Your task to perform on an android device: Open the calendar app, open the side menu, and click the "Day" option Image 0: 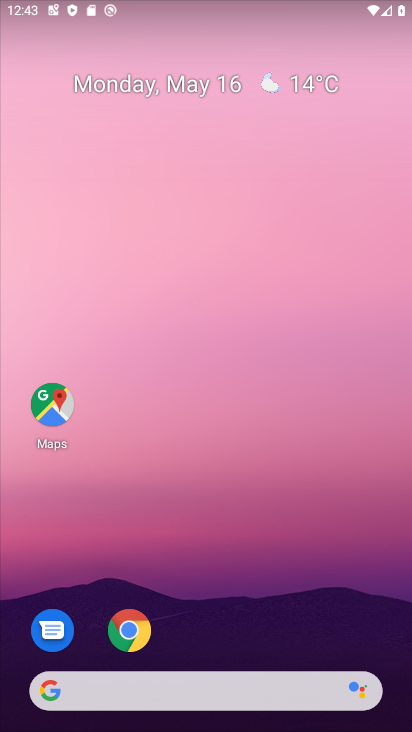
Step 0: drag from (239, 632) to (179, 14)
Your task to perform on an android device: Open the calendar app, open the side menu, and click the "Day" option Image 1: 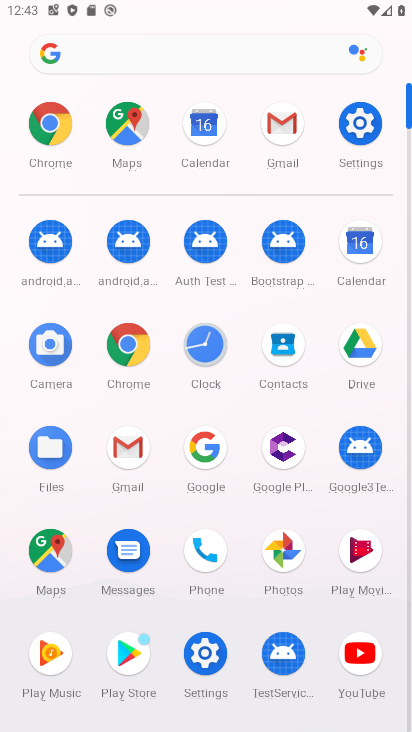
Step 1: click (216, 121)
Your task to perform on an android device: Open the calendar app, open the side menu, and click the "Day" option Image 2: 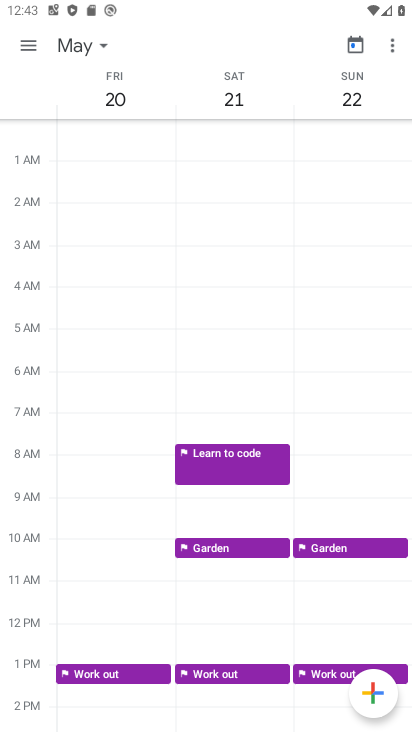
Step 2: click (27, 54)
Your task to perform on an android device: Open the calendar app, open the side menu, and click the "Day" option Image 3: 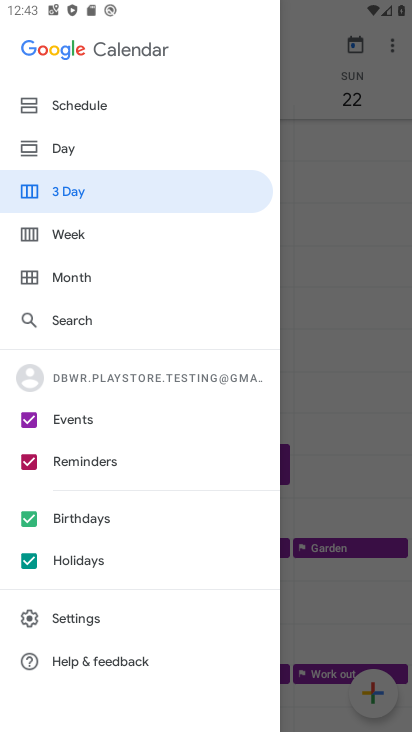
Step 3: click (84, 150)
Your task to perform on an android device: Open the calendar app, open the side menu, and click the "Day" option Image 4: 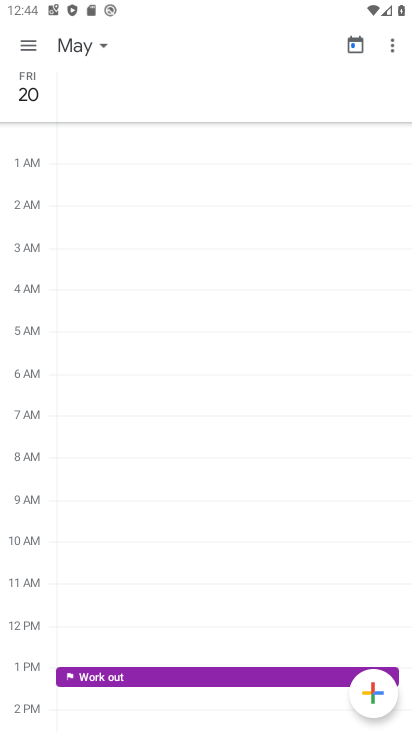
Step 4: task complete